Your task to perform on an android device: turn off priority inbox in the gmail app Image 0: 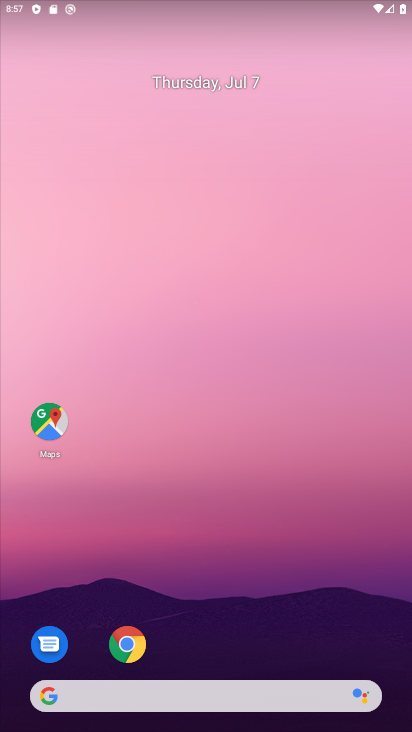
Step 0: drag from (320, 588) to (324, 94)
Your task to perform on an android device: turn off priority inbox in the gmail app Image 1: 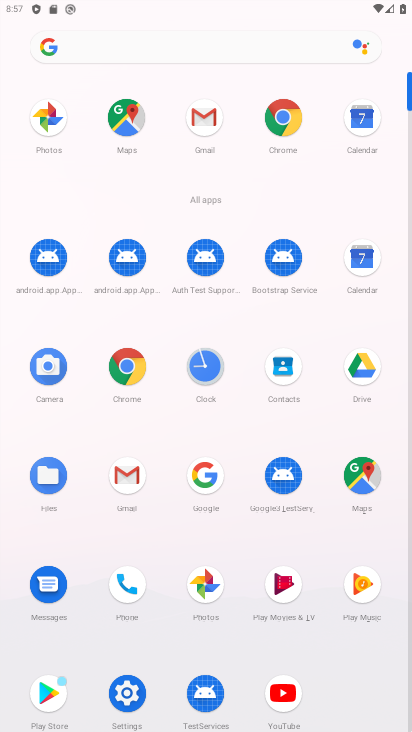
Step 1: click (206, 120)
Your task to perform on an android device: turn off priority inbox in the gmail app Image 2: 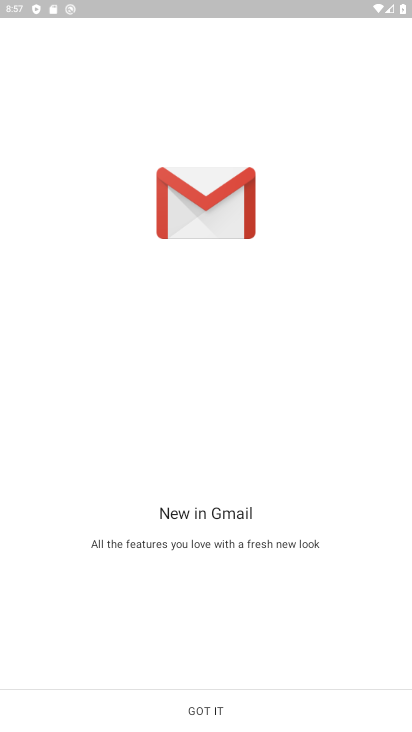
Step 2: click (212, 706)
Your task to perform on an android device: turn off priority inbox in the gmail app Image 3: 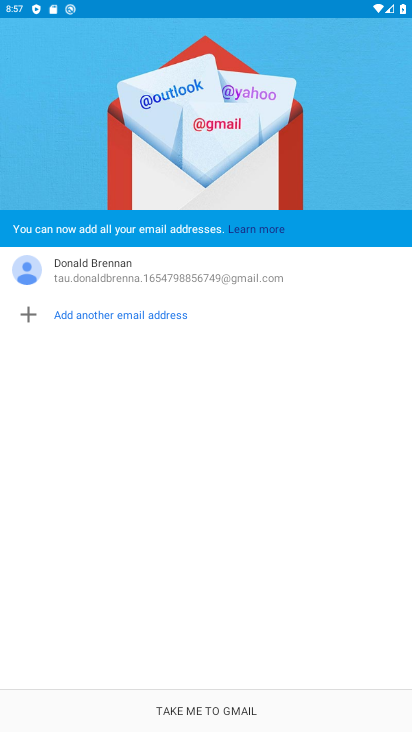
Step 3: click (214, 710)
Your task to perform on an android device: turn off priority inbox in the gmail app Image 4: 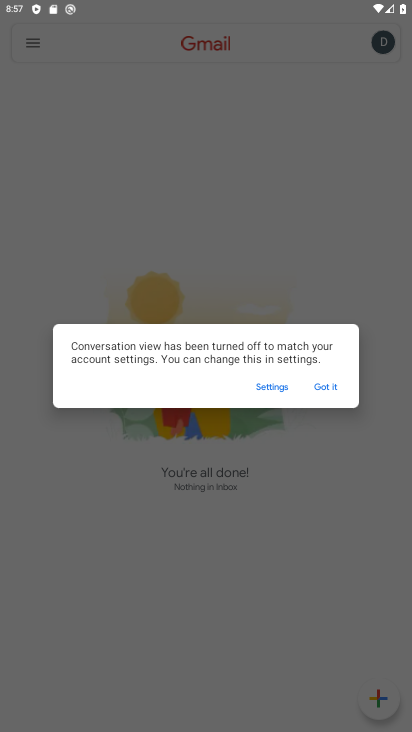
Step 4: click (330, 389)
Your task to perform on an android device: turn off priority inbox in the gmail app Image 5: 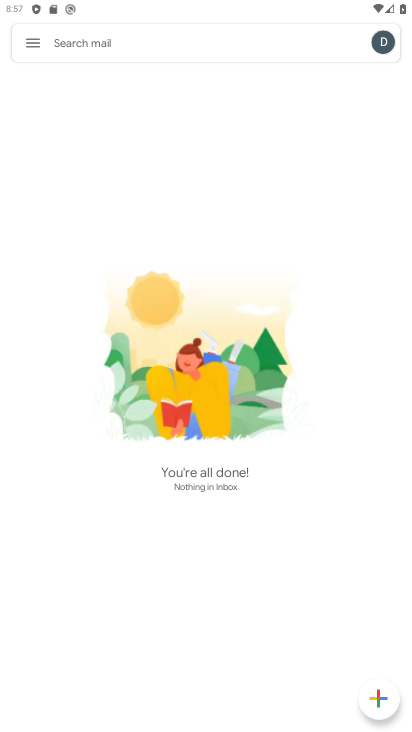
Step 5: click (37, 36)
Your task to perform on an android device: turn off priority inbox in the gmail app Image 6: 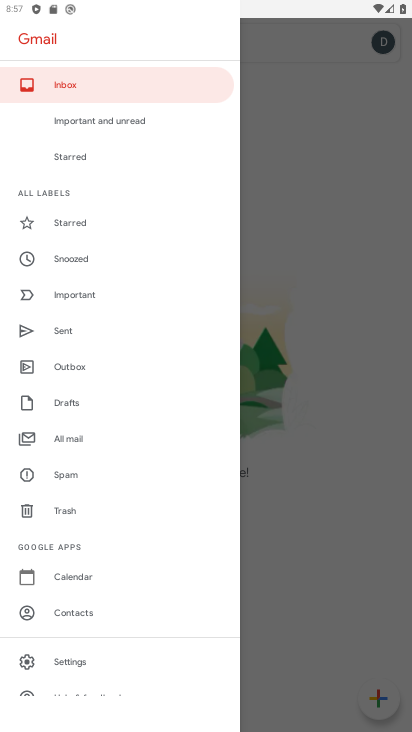
Step 6: click (76, 657)
Your task to perform on an android device: turn off priority inbox in the gmail app Image 7: 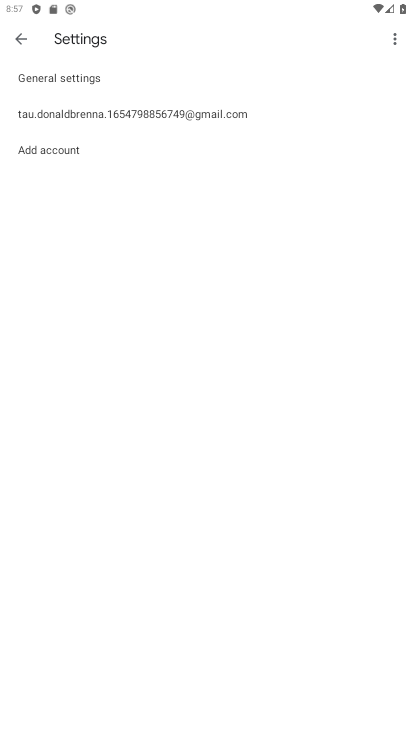
Step 7: click (119, 109)
Your task to perform on an android device: turn off priority inbox in the gmail app Image 8: 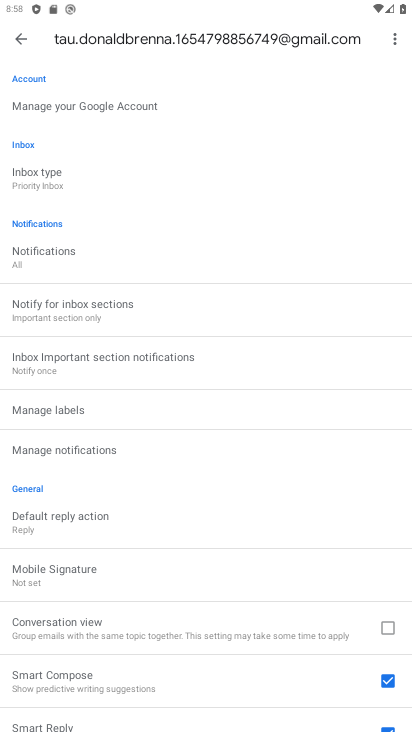
Step 8: click (48, 180)
Your task to perform on an android device: turn off priority inbox in the gmail app Image 9: 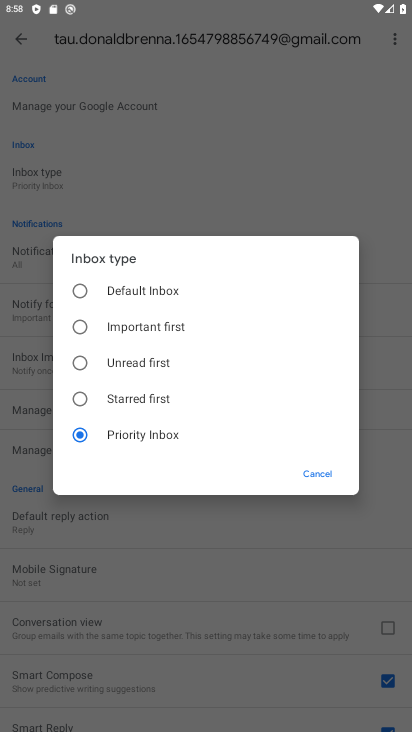
Step 9: task complete